Your task to perform on an android device: Search for the best rated 4K TV on Best Buy. Image 0: 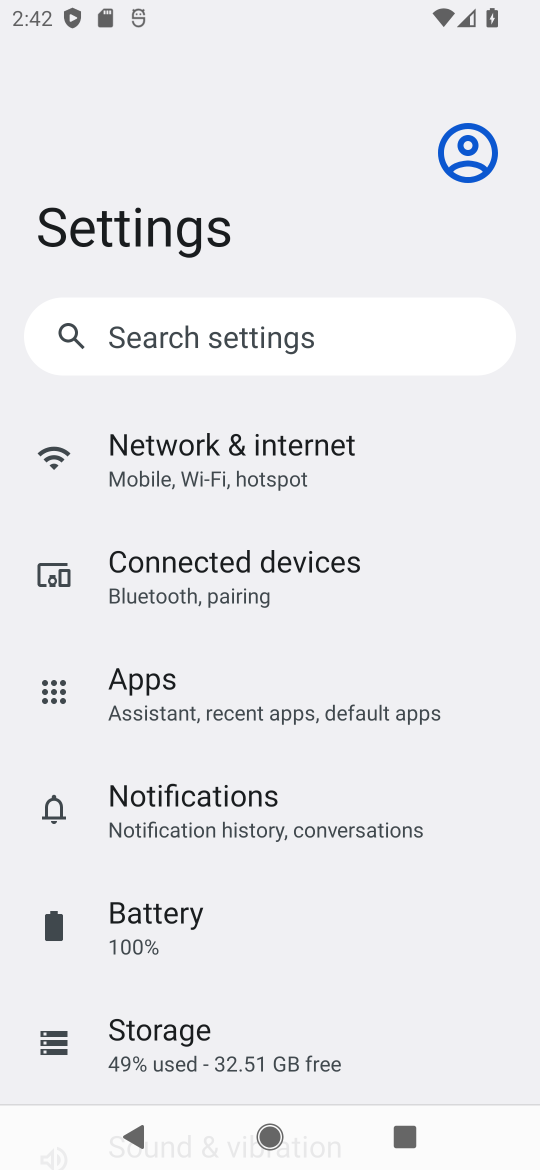
Step 0: press home button
Your task to perform on an android device: Search for the best rated 4K TV on Best Buy. Image 1: 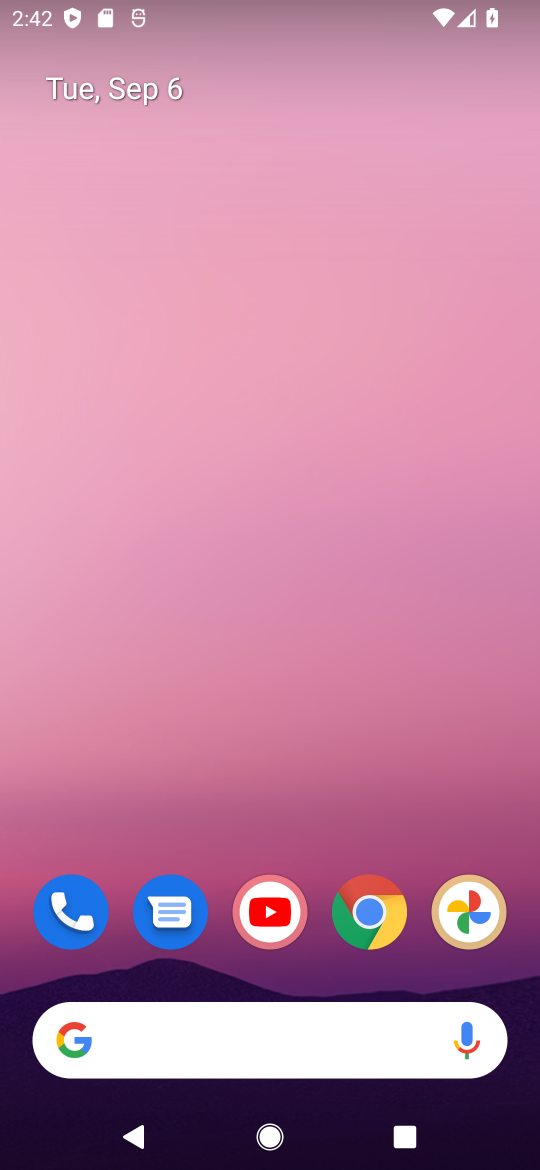
Step 1: drag from (316, 827) to (349, 11)
Your task to perform on an android device: Search for the best rated 4K TV on Best Buy. Image 2: 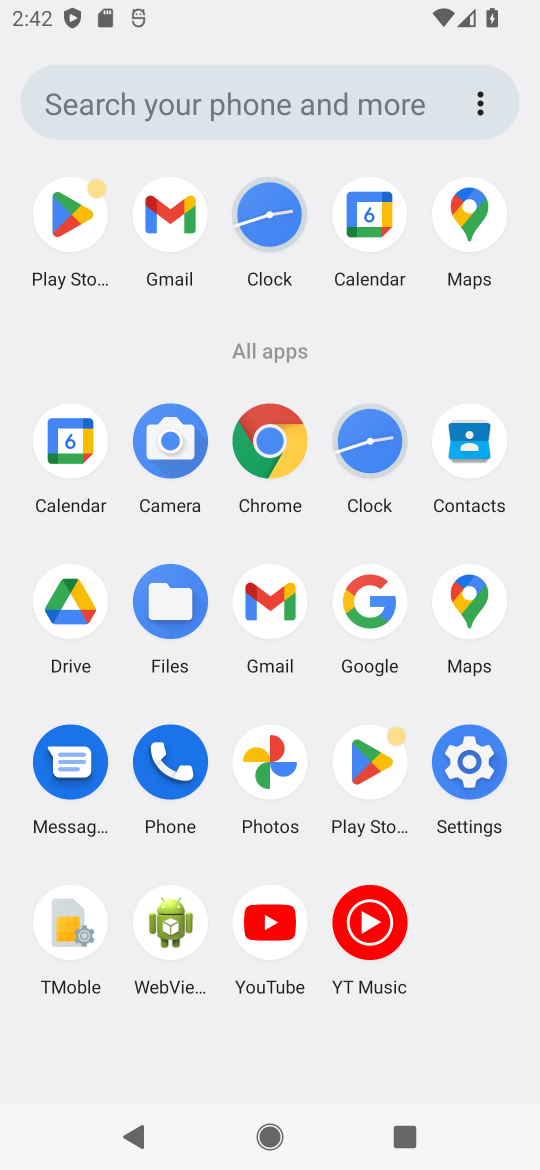
Step 2: click (266, 440)
Your task to perform on an android device: Search for the best rated 4K TV on Best Buy. Image 3: 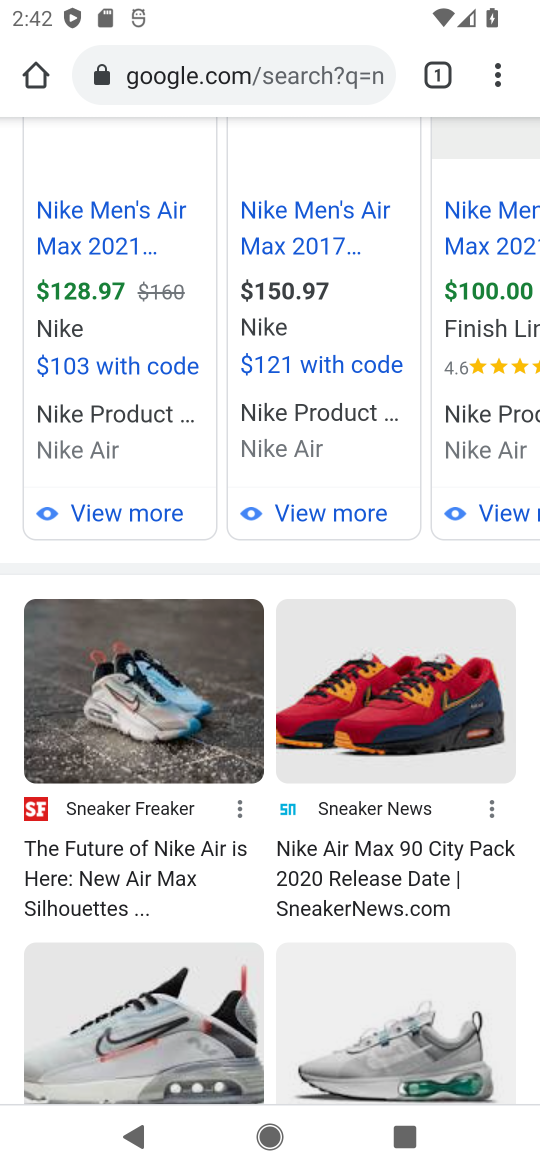
Step 3: click (288, 77)
Your task to perform on an android device: Search for the best rated 4K TV on Best Buy. Image 4: 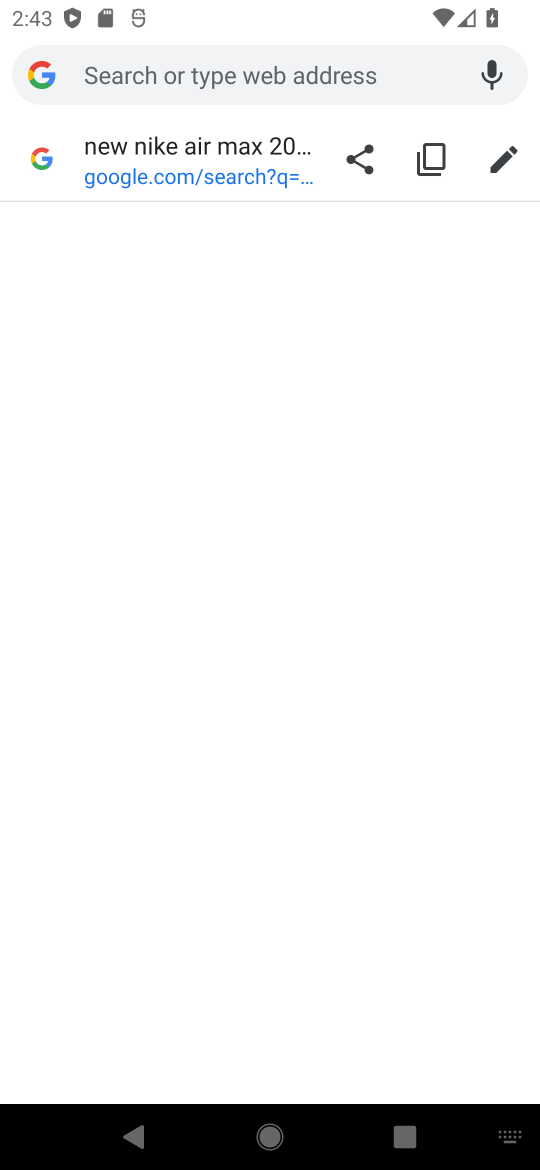
Step 4: type " Best Buy"
Your task to perform on an android device: Search for the best rated 4K TV on Best Buy. Image 5: 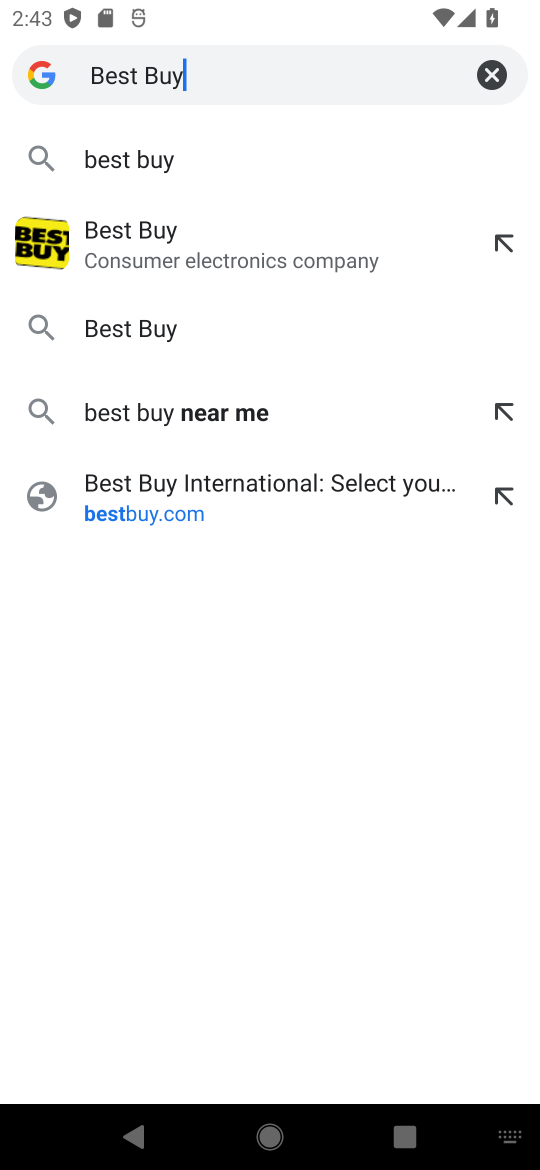
Step 5: click (139, 161)
Your task to perform on an android device: Search for the best rated 4K TV on Best Buy. Image 6: 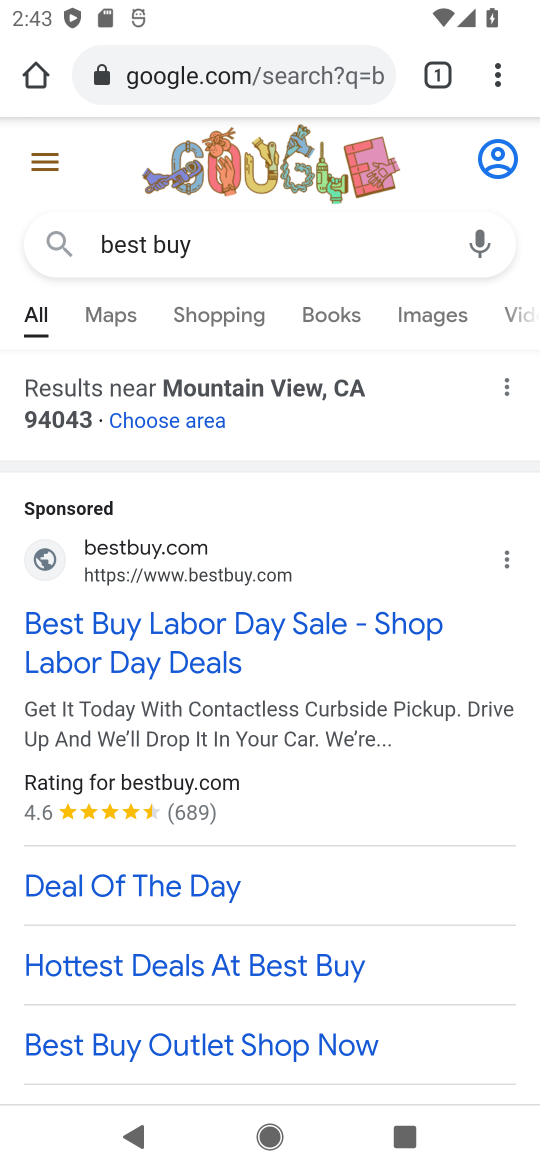
Step 6: click (95, 634)
Your task to perform on an android device: Search for the best rated 4K TV on Best Buy. Image 7: 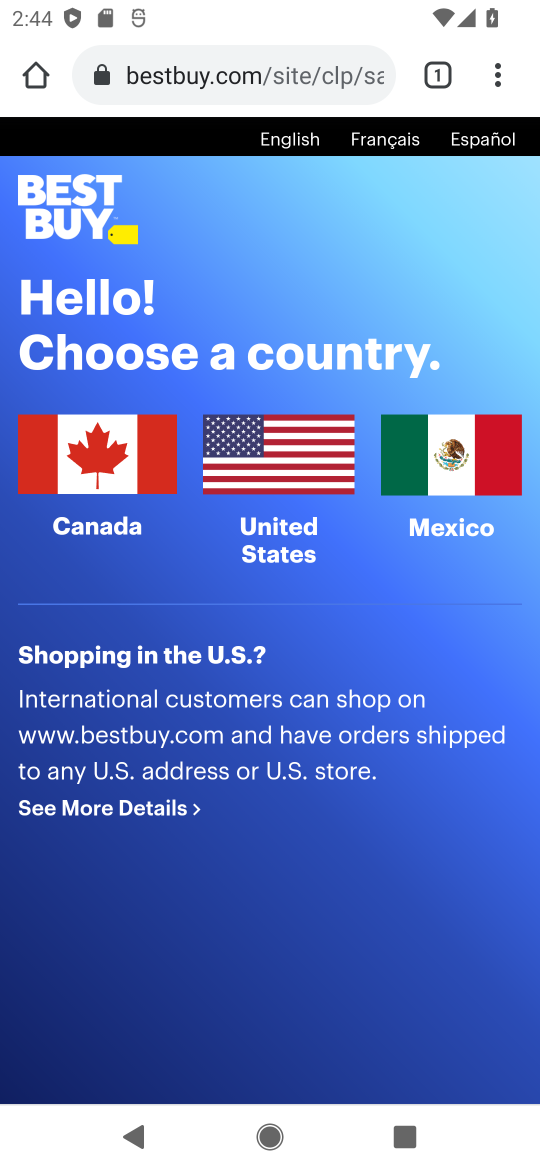
Step 7: task complete